Your task to perform on an android device: clear all cookies in the chrome app Image 0: 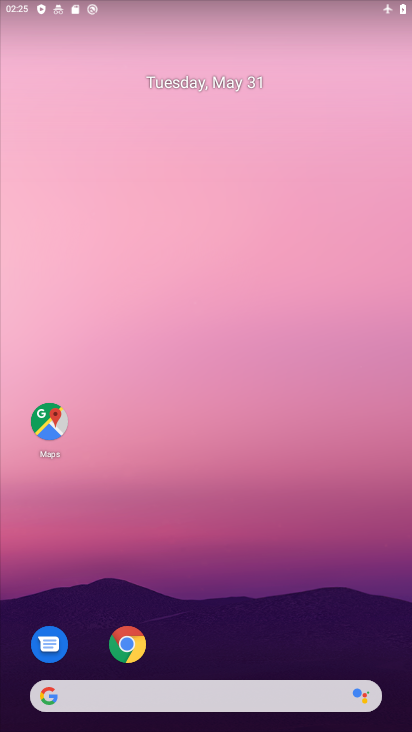
Step 0: click (125, 639)
Your task to perform on an android device: clear all cookies in the chrome app Image 1: 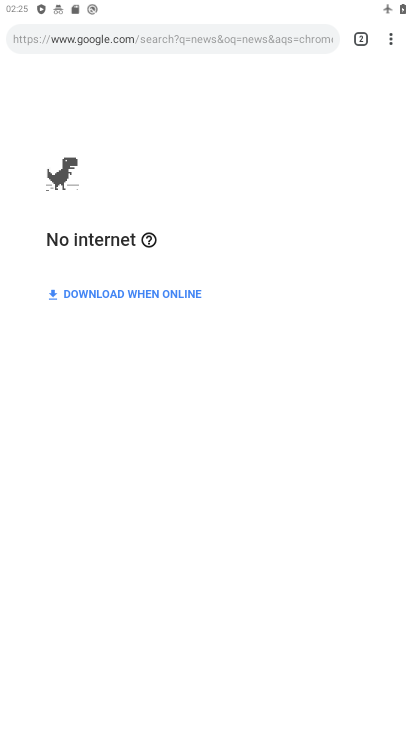
Step 1: task complete